Your task to perform on an android device: turn on bluetooth scan Image 0: 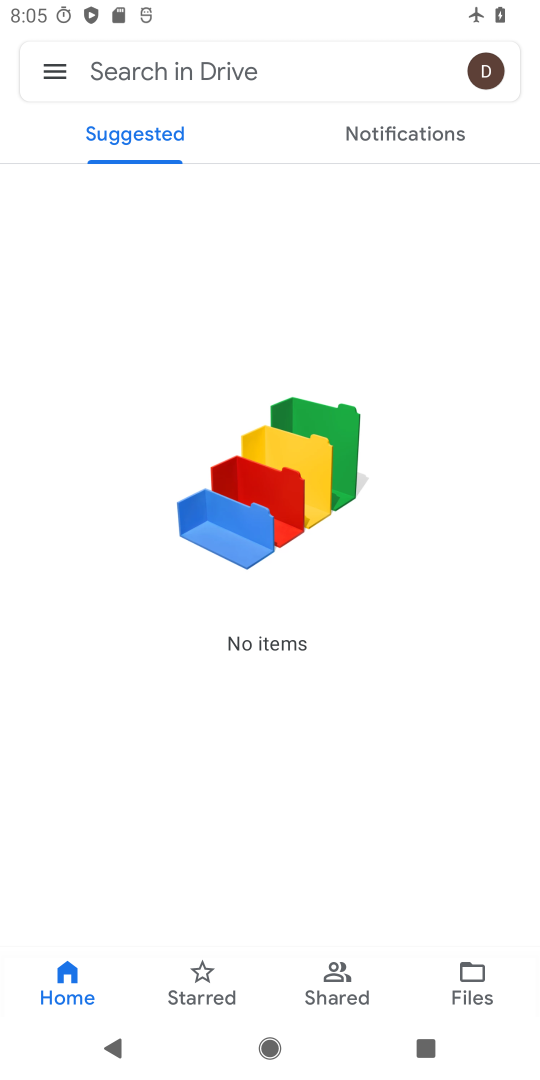
Step 0: press home button
Your task to perform on an android device: turn on bluetooth scan Image 1: 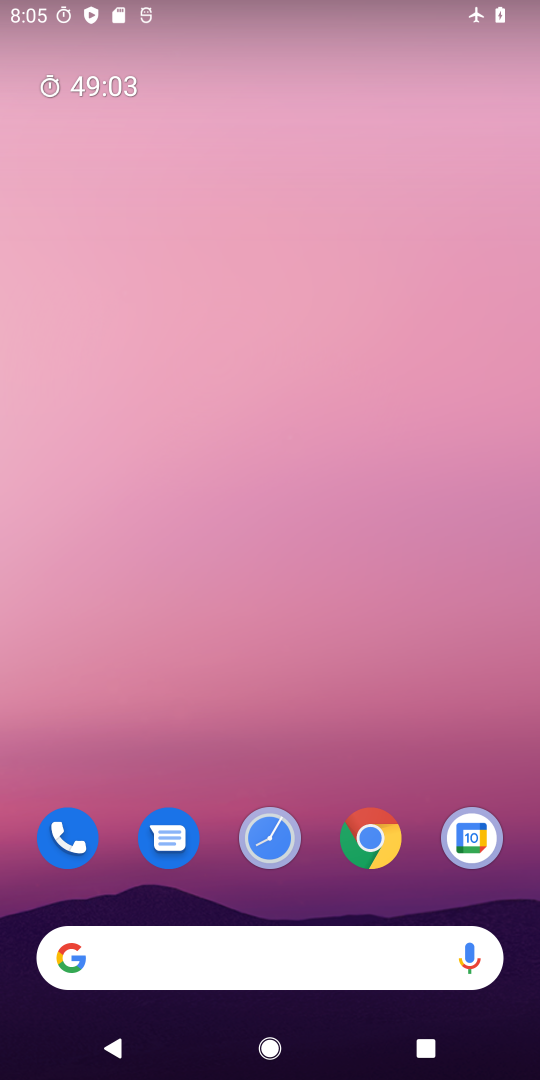
Step 1: drag from (272, 679) to (533, 750)
Your task to perform on an android device: turn on bluetooth scan Image 2: 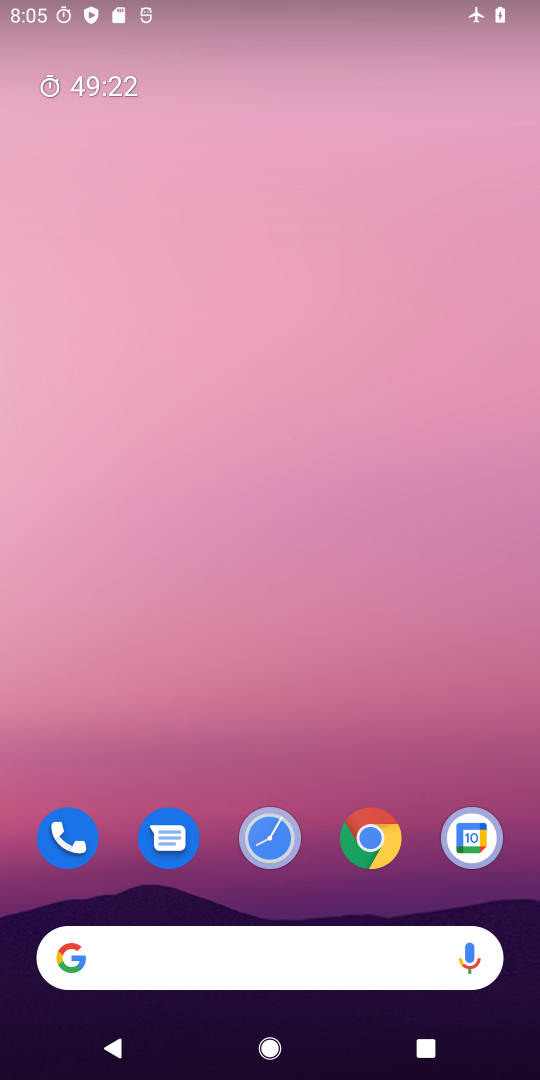
Step 2: click (472, 686)
Your task to perform on an android device: turn on bluetooth scan Image 3: 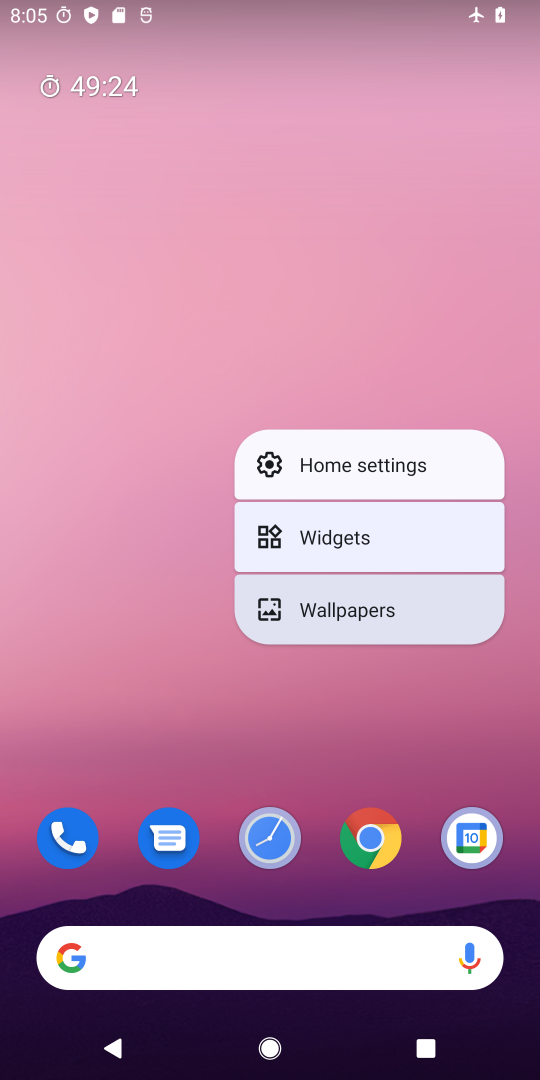
Step 3: drag from (472, 686) to (477, 32)
Your task to perform on an android device: turn on bluetooth scan Image 4: 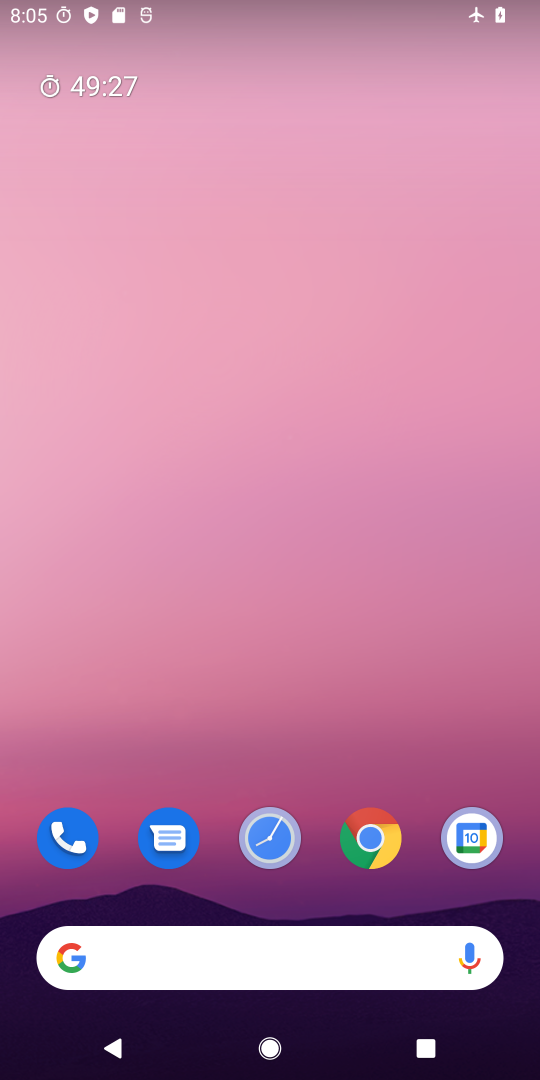
Step 4: drag from (341, 804) to (376, 12)
Your task to perform on an android device: turn on bluetooth scan Image 5: 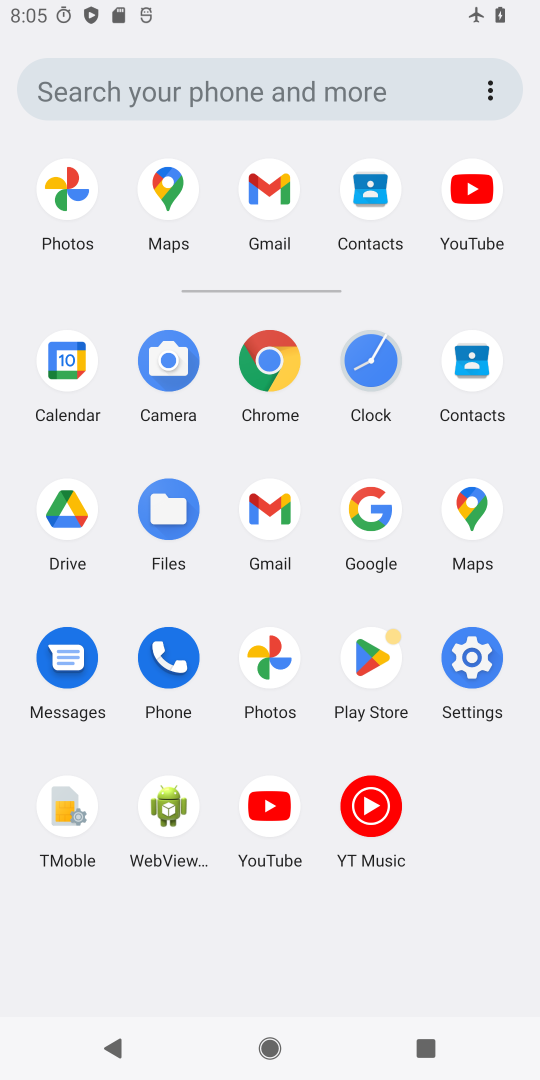
Step 5: click (505, 657)
Your task to perform on an android device: turn on bluetooth scan Image 6: 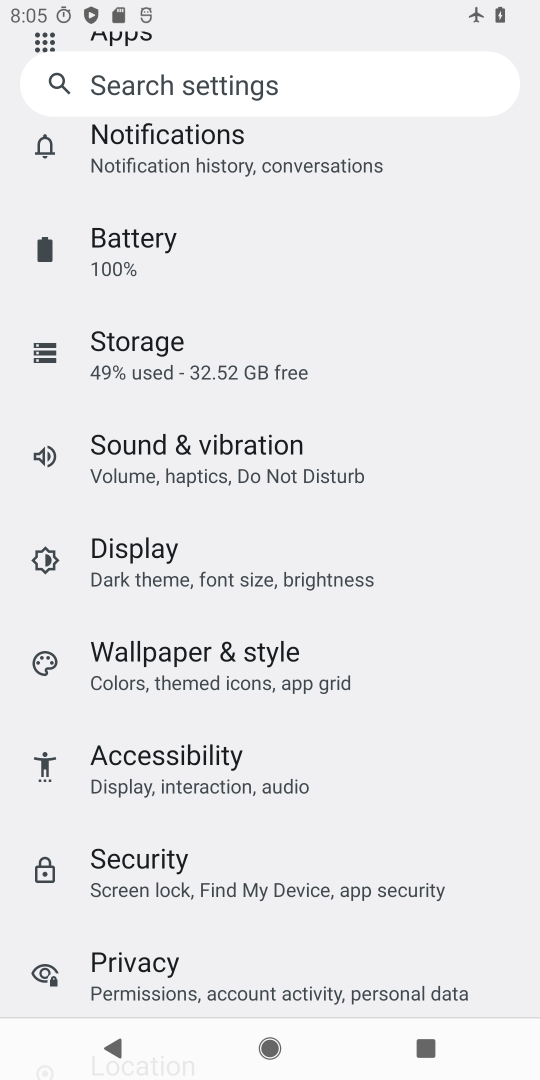
Step 6: drag from (458, 297) to (351, 1079)
Your task to perform on an android device: turn on bluetooth scan Image 7: 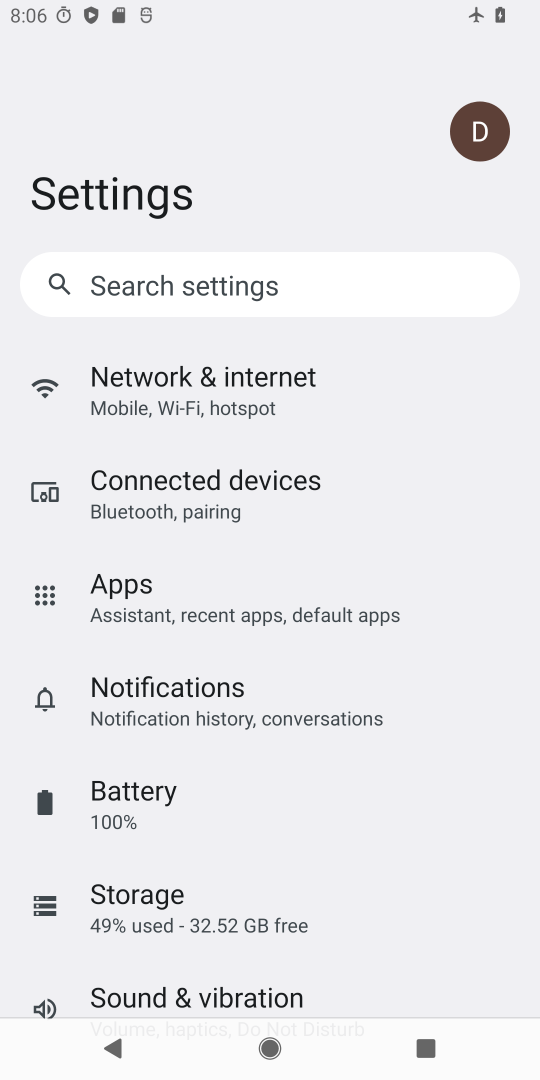
Step 7: drag from (309, 717) to (316, 198)
Your task to perform on an android device: turn on bluetooth scan Image 8: 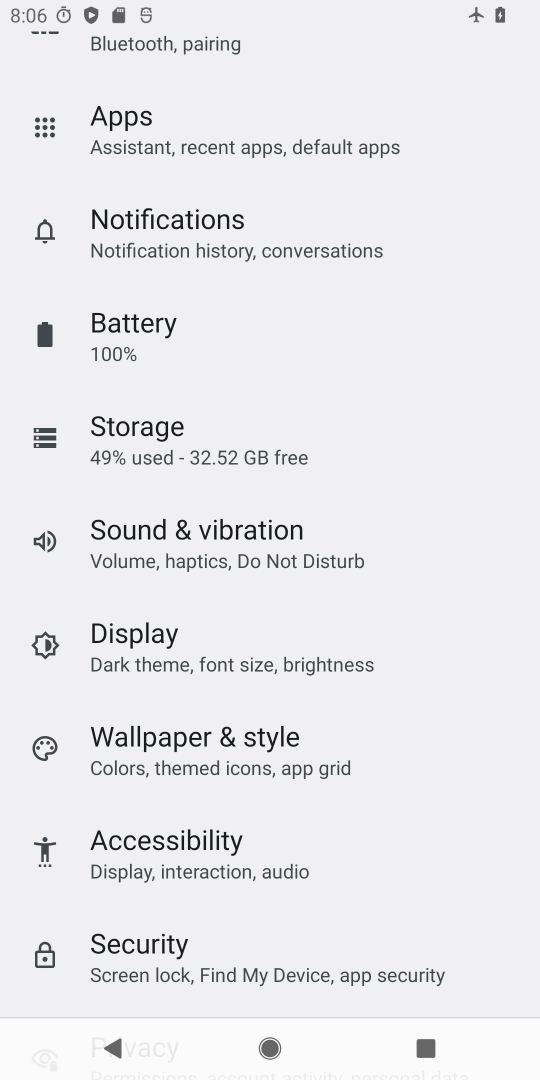
Step 8: drag from (187, 952) to (169, 309)
Your task to perform on an android device: turn on bluetooth scan Image 9: 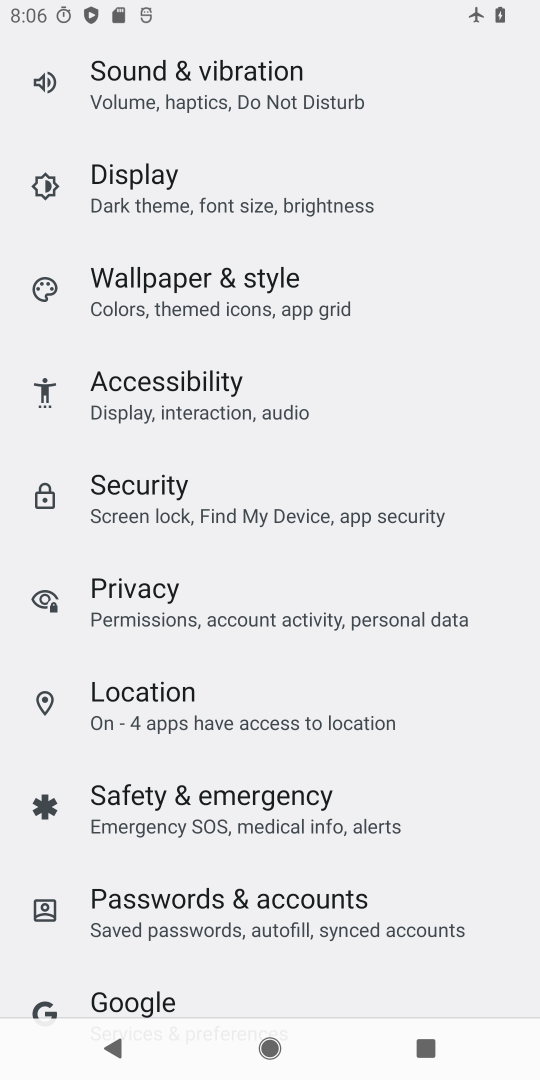
Step 9: drag from (195, 983) to (295, 299)
Your task to perform on an android device: turn on bluetooth scan Image 10: 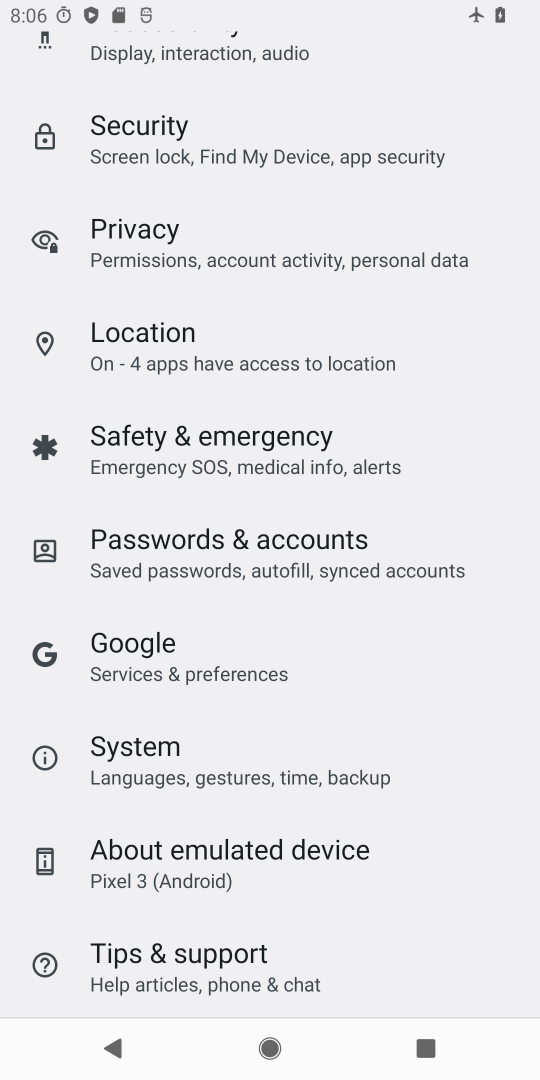
Step 10: click (150, 343)
Your task to perform on an android device: turn on bluetooth scan Image 11: 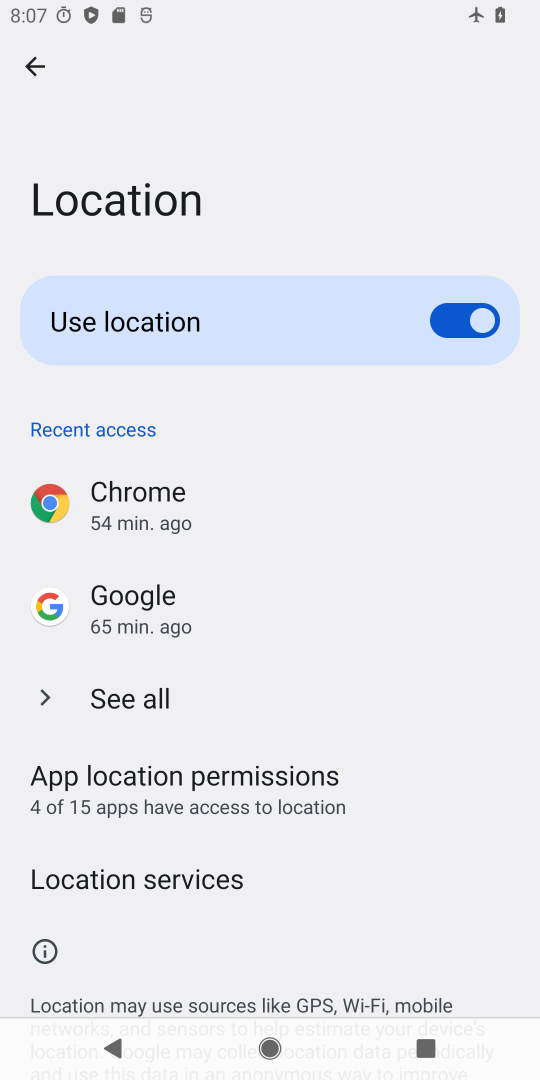
Step 11: press home button
Your task to perform on an android device: turn on bluetooth scan Image 12: 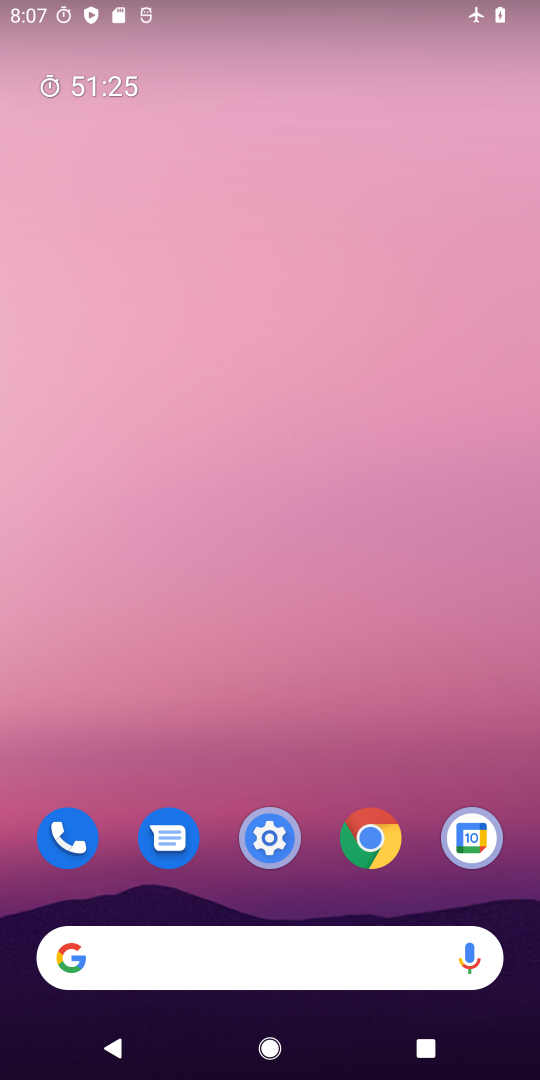
Step 12: click (293, 844)
Your task to perform on an android device: turn on bluetooth scan Image 13: 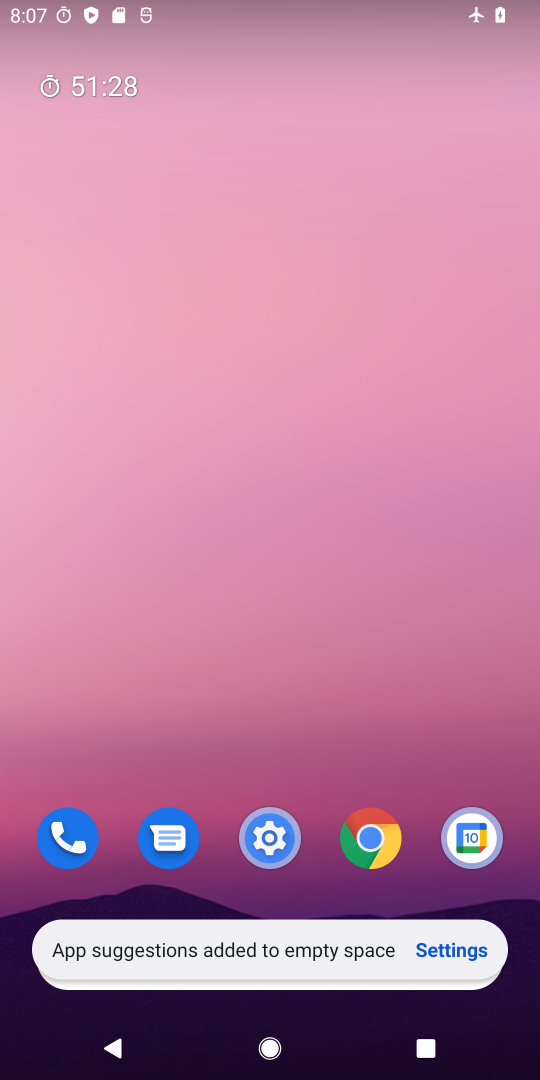
Step 13: click (293, 844)
Your task to perform on an android device: turn on bluetooth scan Image 14: 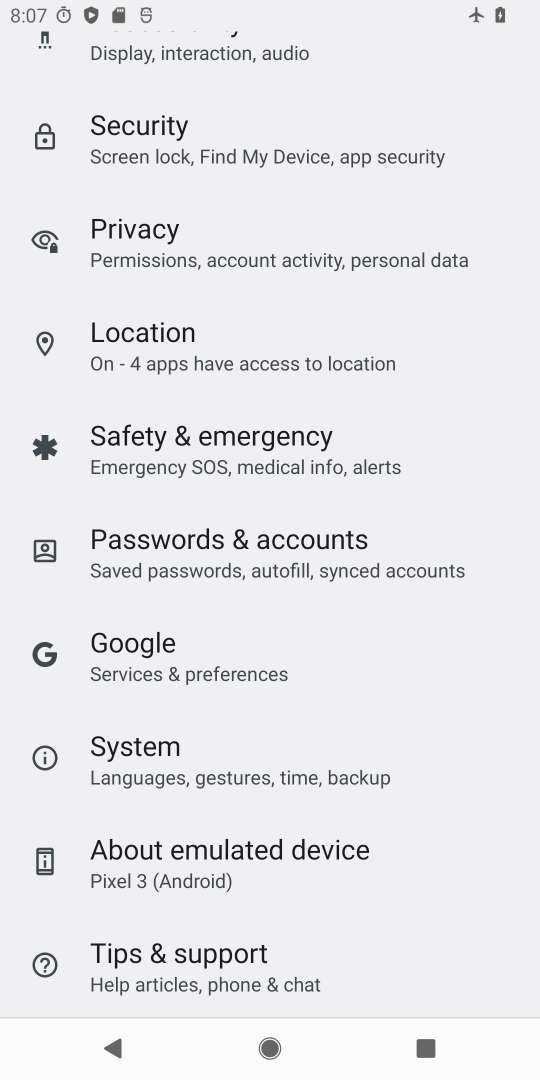
Step 14: click (94, 348)
Your task to perform on an android device: turn on bluetooth scan Image 15: 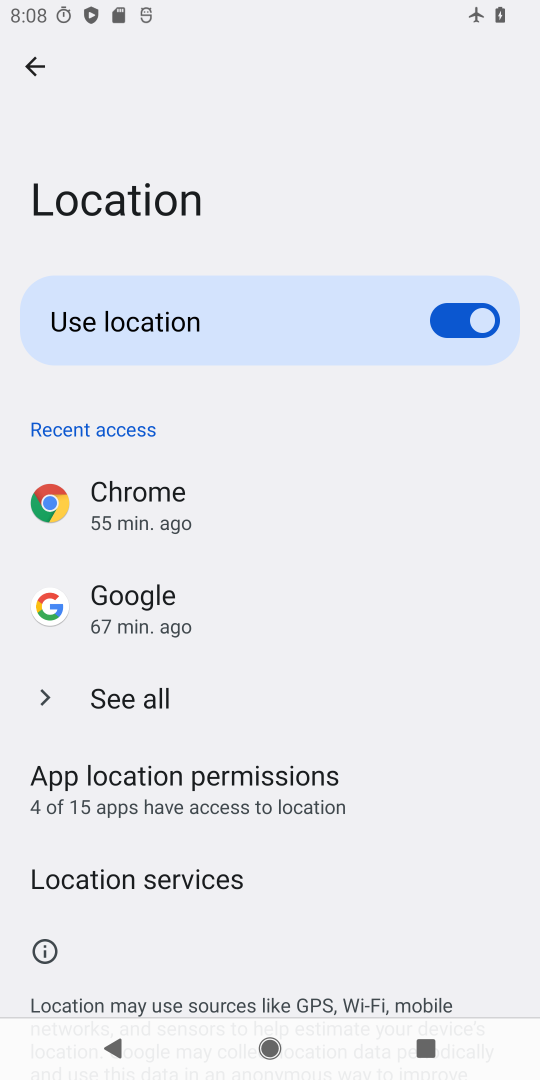
Step 15: drag from (217, 884) to (241, 284)
Your task to perform on an android device: turn on bluetooth scan Image 16: 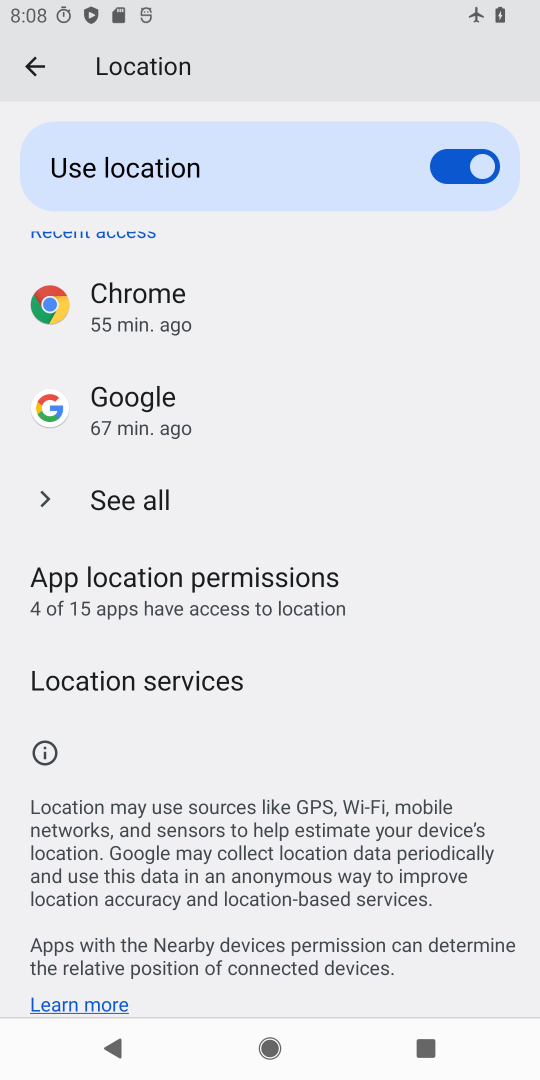
Step 16: click (199, 590)
Your task to perform on an android device: turn on bluetooth scan Image 17: 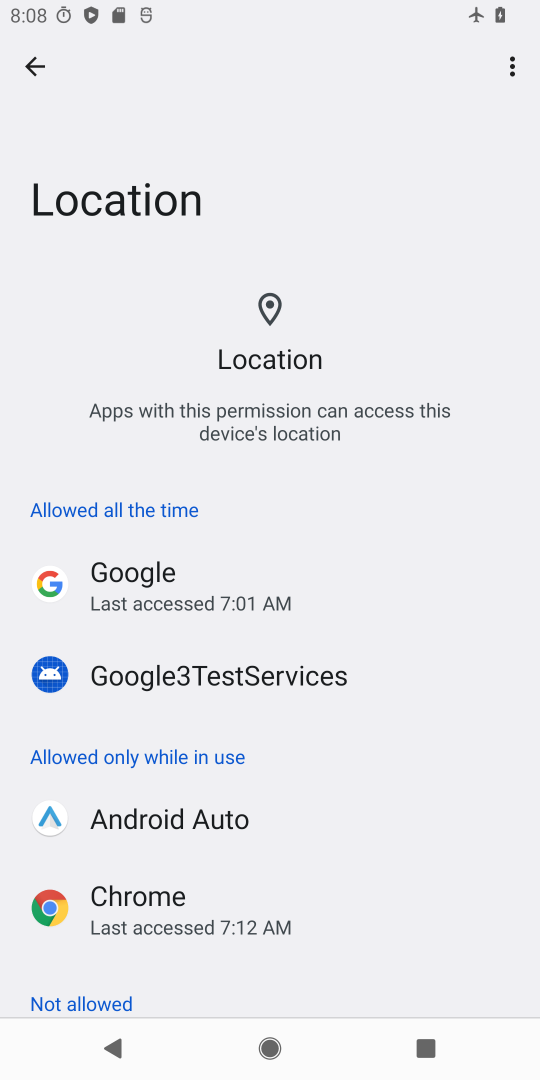
Step 17: drag from (265, 722) to (271, 0)
Your task to perform on an android device: turn on bluetooth scan Image 18: 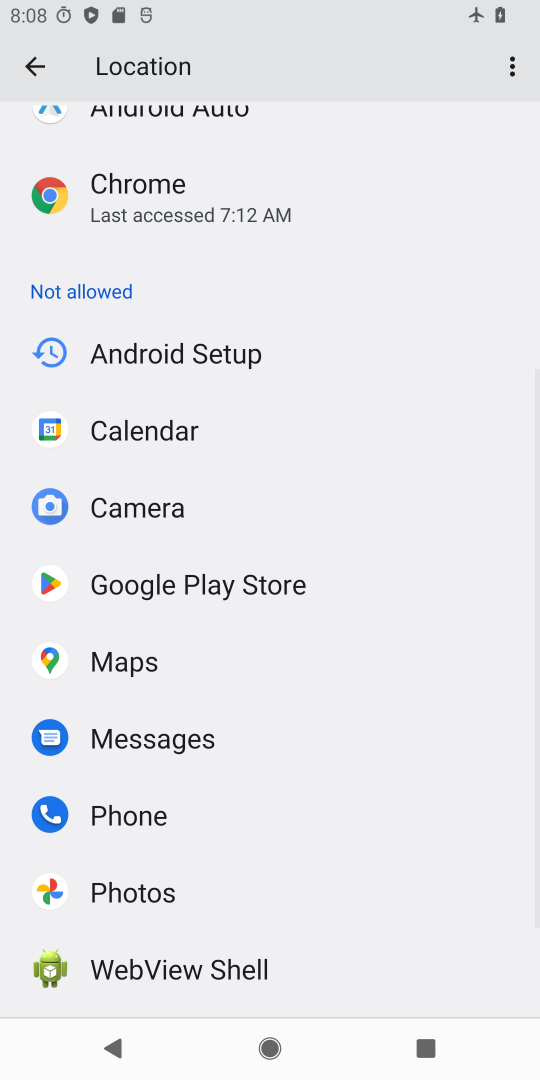
Step 18: click (509, 74)
Your task to perform on an android device: turn on bluetooth scan Image 19: 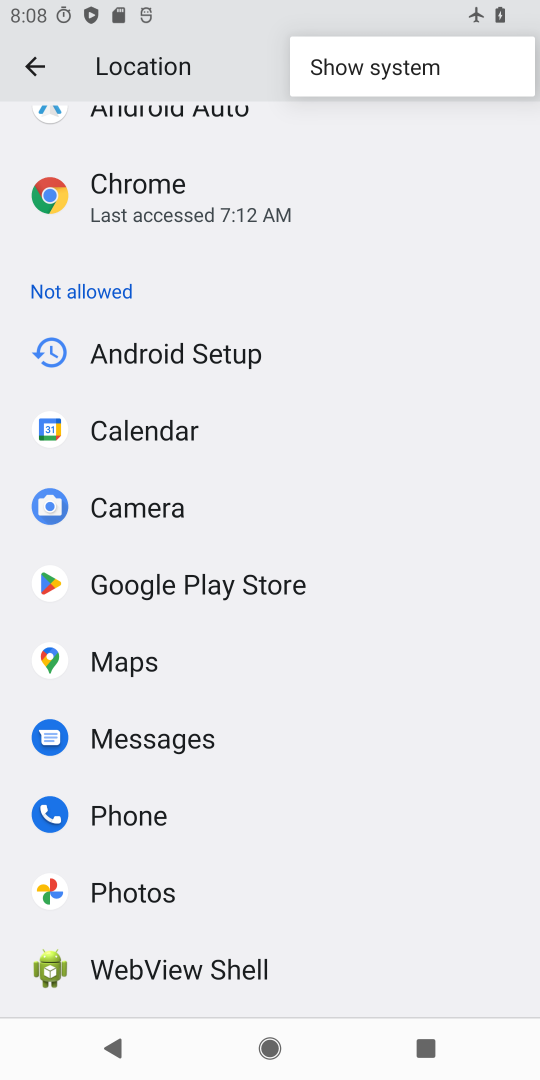
Step 19: click (414, 65)
Your task to perform on an android device: turn on bluetooth scan Image 20: 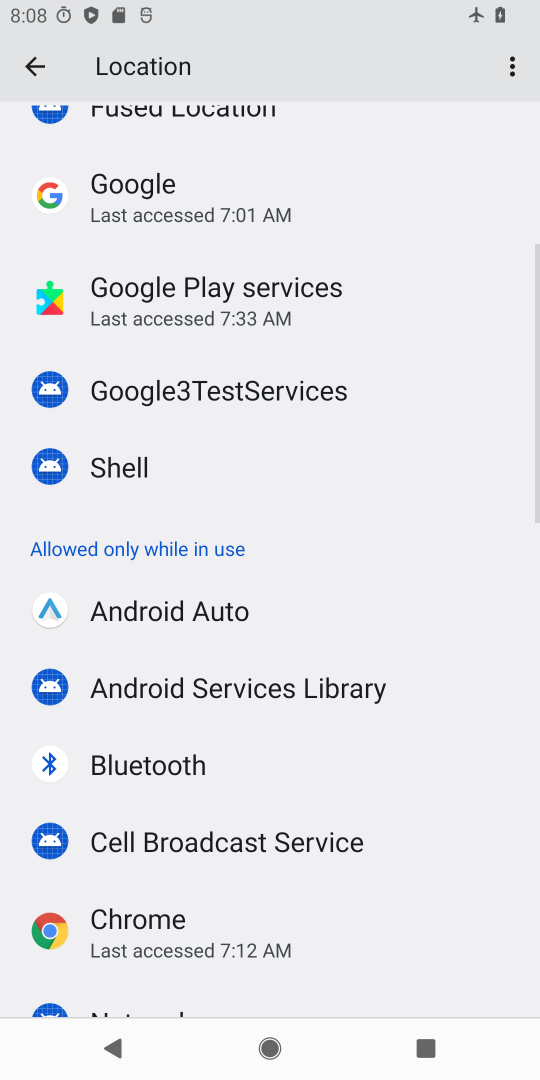
Step 20: task complete